Your task to perform on an android device: turn on priority inbox in the gmail app Image 0: 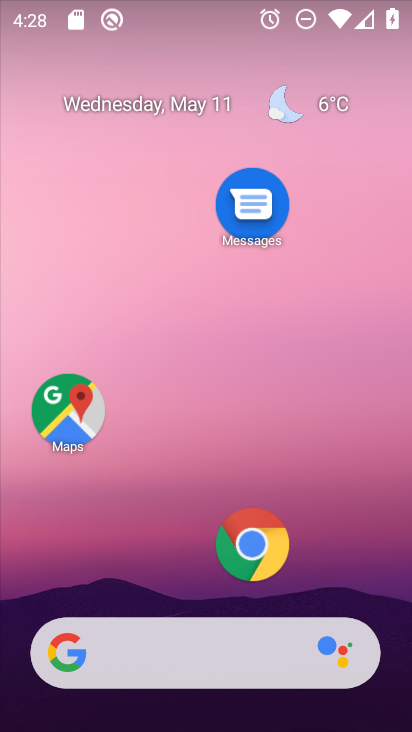
Step 0: drag from (173, 541) to (238, 3)
Your task to perform on an android device: turn on priority inbox in the gmail app Image 1: 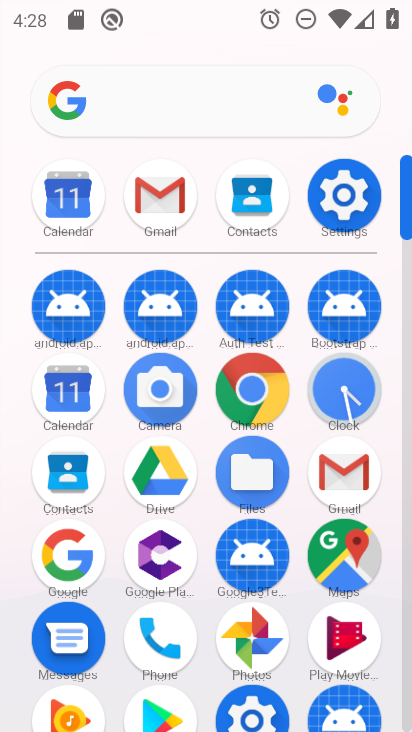
Step 1: click (163, 197)
Your task to perform on an android device: turn on priority inbox in the gmail app Image 2: 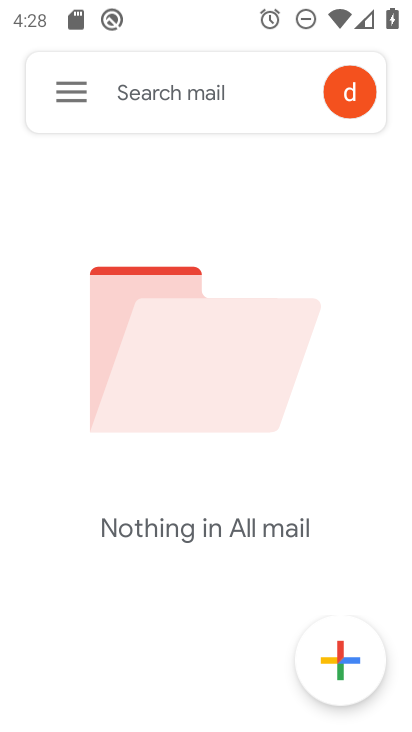
Step 2: click (73, 82)
Your task to perform on an android device: turn on priority inbox in the gmail app Image 3: 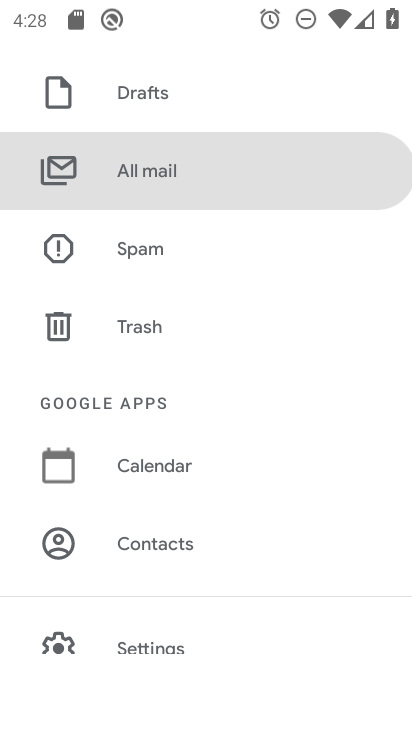
Step 3: drag from (167, 624) to (311, 96)
Your task to perform on an android device: turn on priority inbox in the gmail app Image 4: 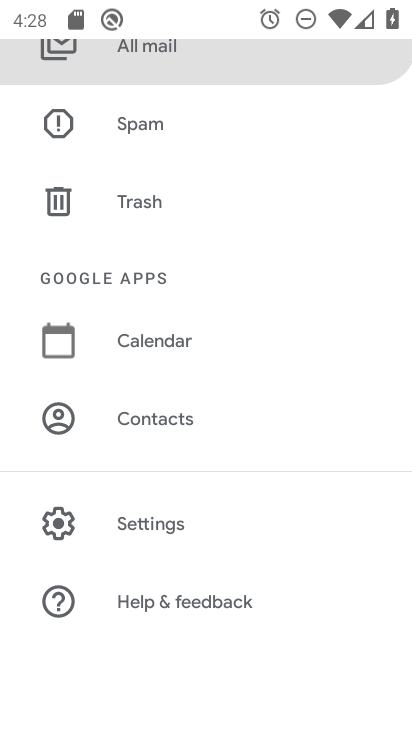
Step 4: click (159, 510)
Your task to perform on an android device: turn on priority inbox in the gmail app Image 5: 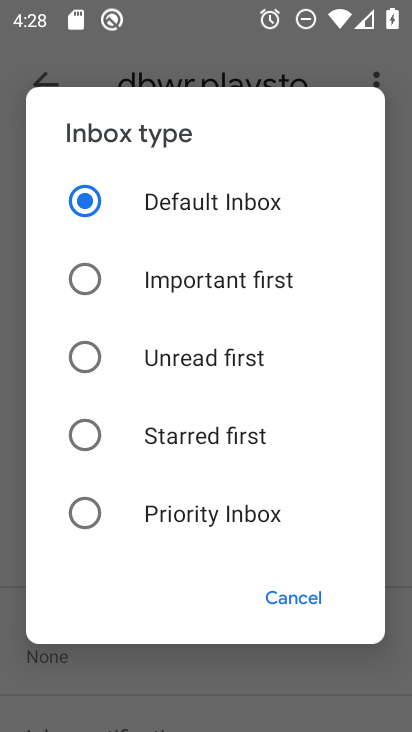
Step 5: click (186, 511)
Your task to perform on an android device: turn on priority inbox in the gmail app Image 6: 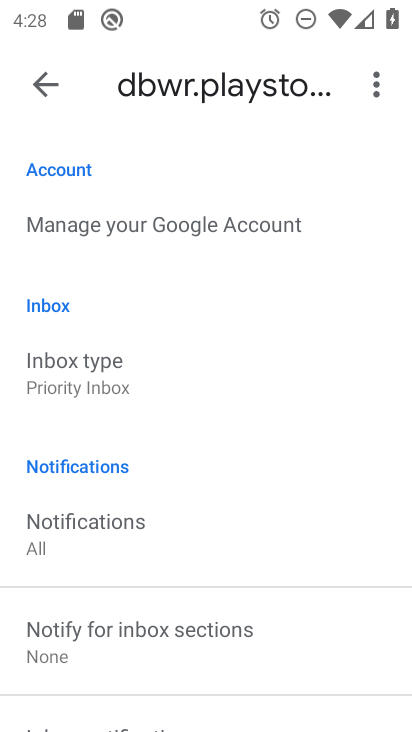
Step 6: task complete